Your task to perform on an android device: turn on bluetooth scan Image 0: 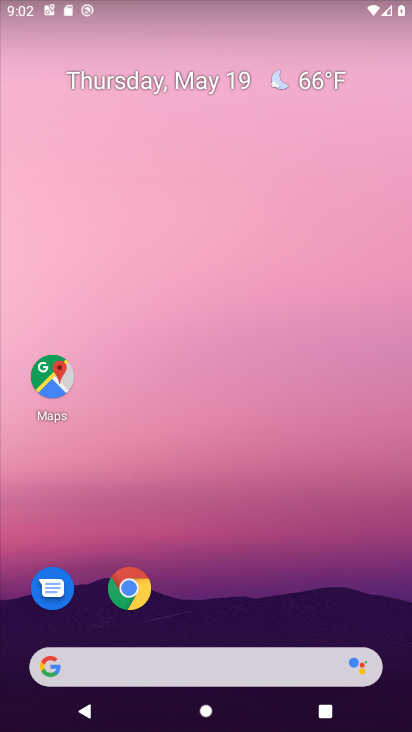
Step 0: drag from (370, 608) to (371, 147)
Your task to perform on an android device: turn on bluetooth scan Image 1: 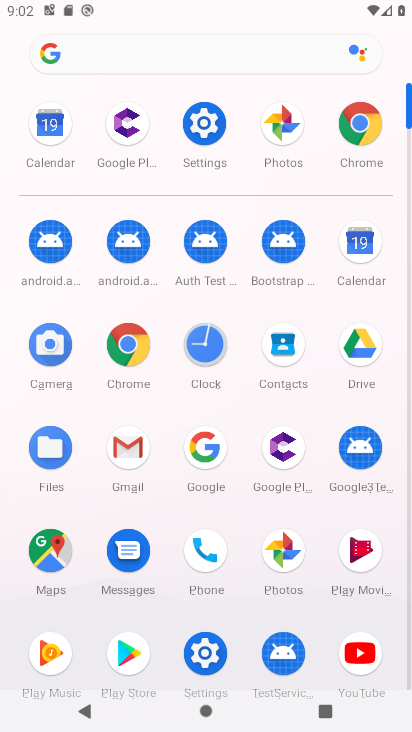
Step 1: click (196, 127)
Your task to perform on an android device: turn on bluetooth scan Image 2: 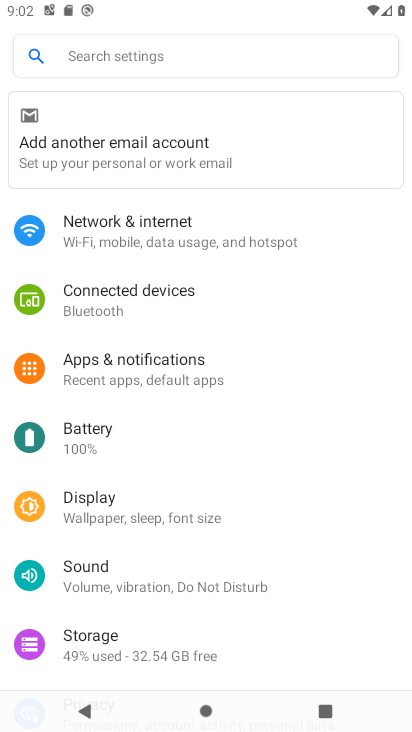
Step 2: drag from (325, 573) to (340, 411)
Your task to perform on an android device: turn on bluetooth scan Image 3: 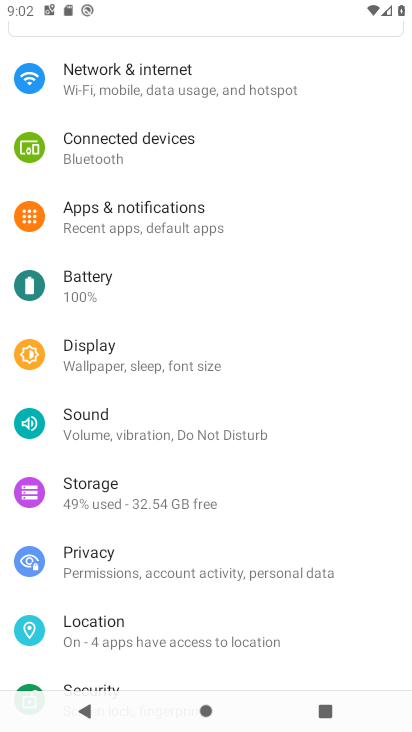
Step 3: drag from (350, 619) to (346, 484)
Your task to perform on an android device: turn on bluetooth scan Image 4: 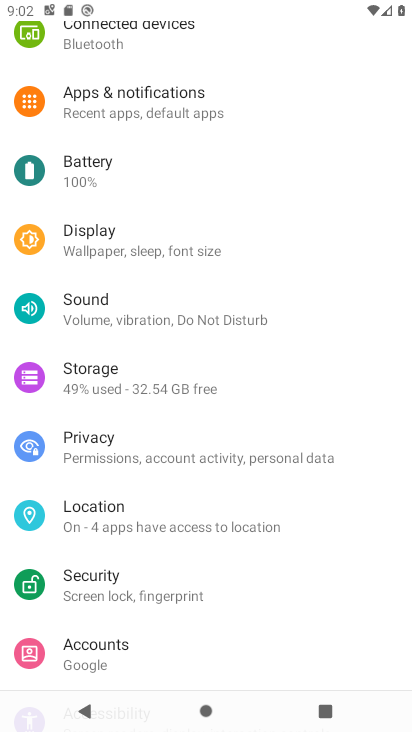
Step 4: drag from (381, 649) to (365, 488)
Your task to perform on an android device: turn on bluetooth scan Image 5: 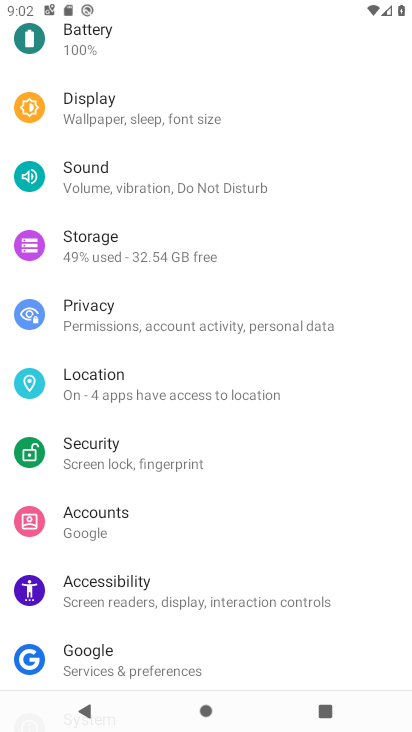
Step 5: drag from (363, 616) to (357, 439)
Your task to perform on an android device: turn on bluetooth scan Image 6: 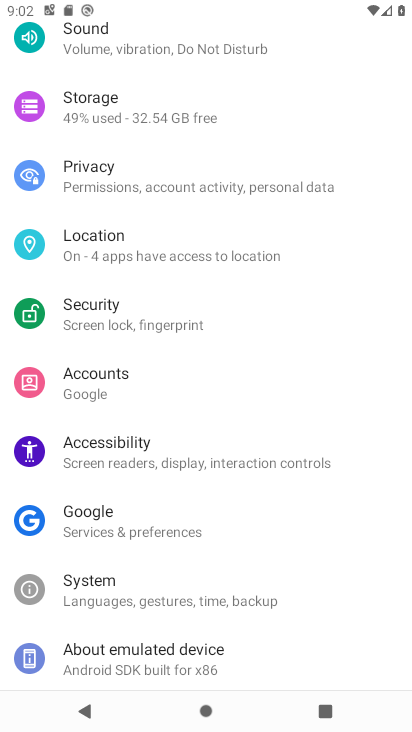
Step 6: drag from (359, 621) to (354, 516)
Your task to perform on an android device: turn on bluetooth scan Image 7: 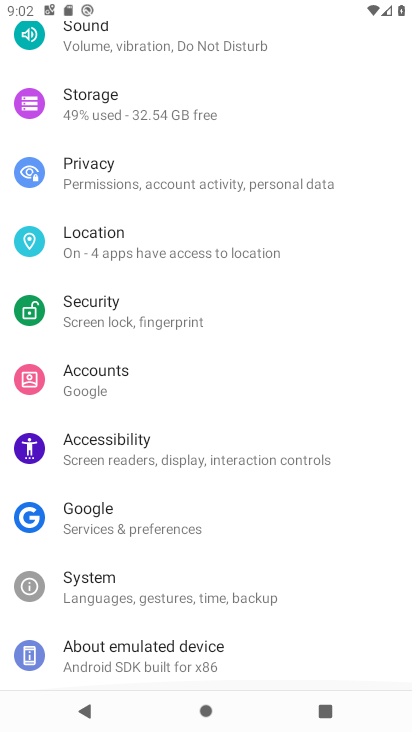
Step 7: drag from (357, 412) to (360, 519)
Your task to perform on an android device: turn on bluetooth scan Image 8: 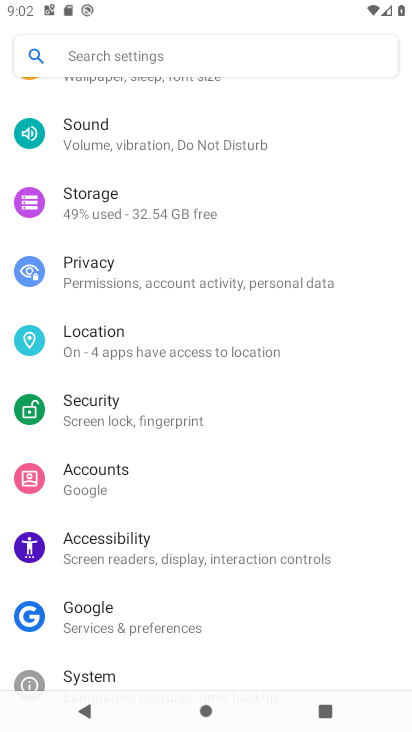
Step 8: drag from (372, 421) to (350, 565)
Your task to perform on an android device: turn on bluetooth scan Image 9: 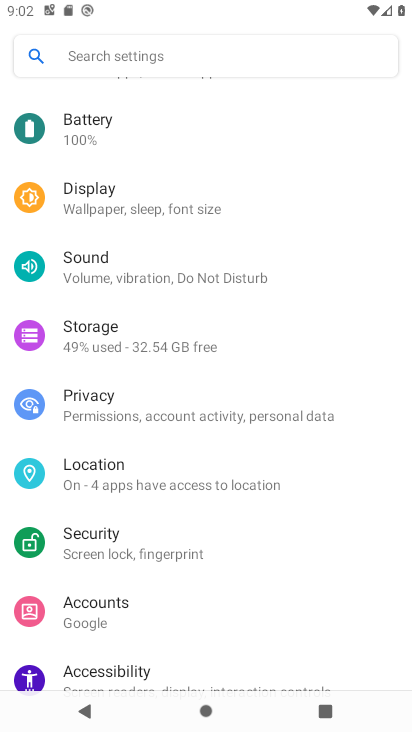
Step 9: click (276, 479)
Your task to perform on an android device: turn on bluetooth scan Image 10: 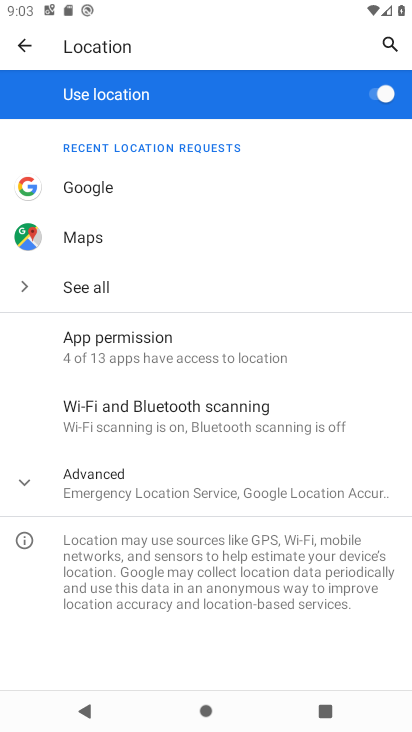
Step 10: click (272, 436)
Your task to perform on an android device: turn on bluetooth scan Image 11: 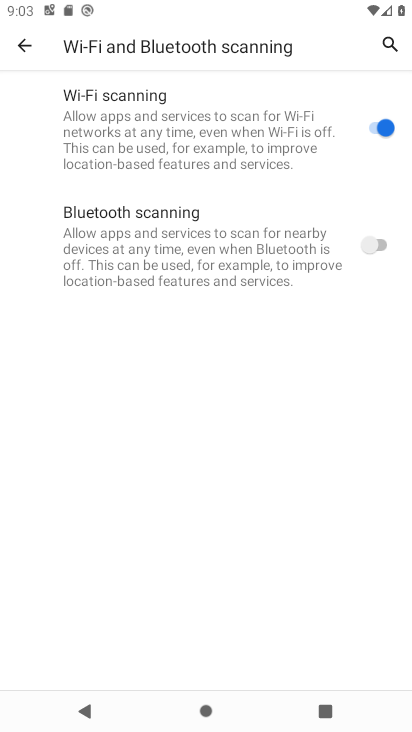
Step 11: click (368, 250)
Your task to perform on an android device: turn on bluetooth scan Image 12: 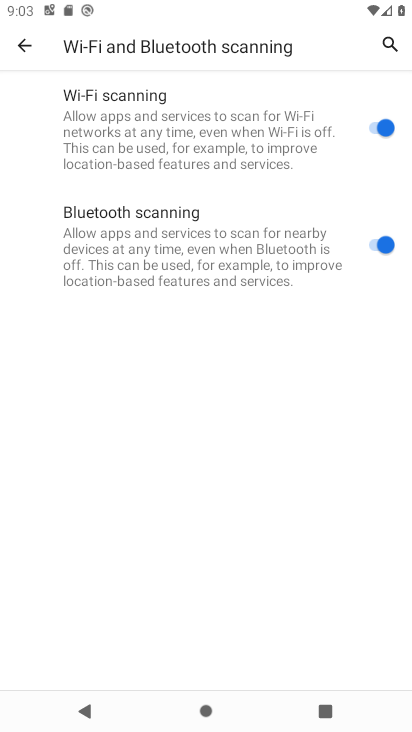
Step 12: task complete